Your task to perform on an android device: Open the calendar app, open the side menu, and click the "Day" option Image 0: 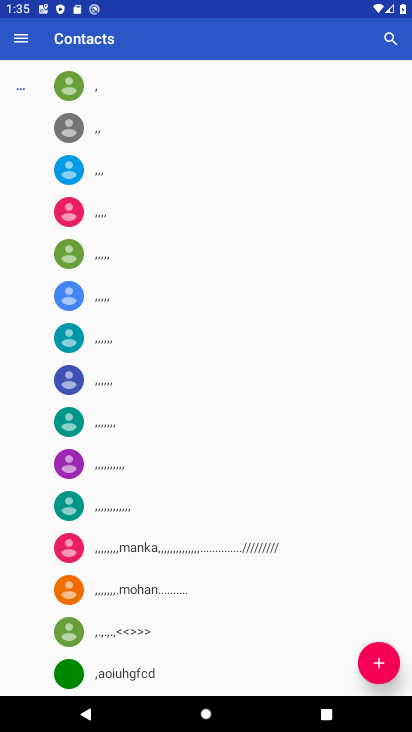
Step 0: press home button
Your task to perform on an android device: Open the calendar app, open the side menu, and click the "Day" option Image 1: 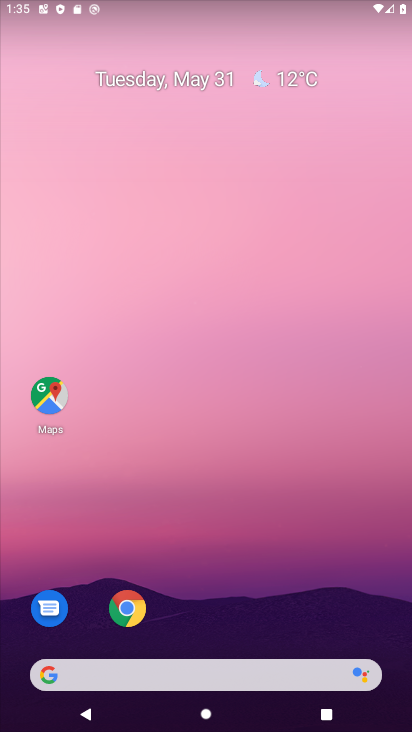
Step 1: drag from (374, 597) to (368, 89)
Your task to perform on an android device: Open the calendar app, open the side menu, and click the "Day" option Image 2: 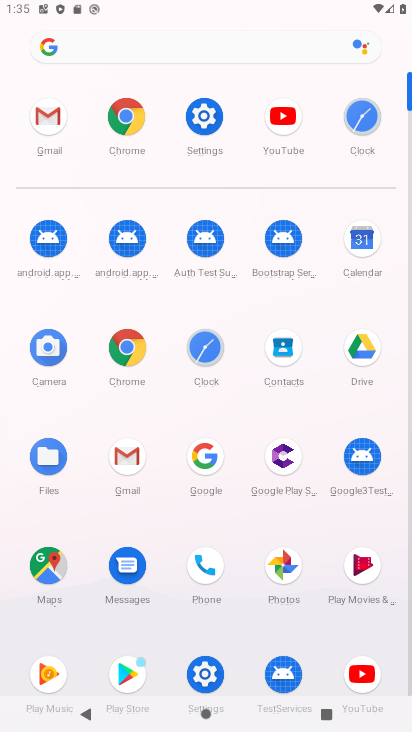
Step 2: click (372, 250)
Your task to perform on an android device: Open the calendar app, open the side menu, and click the "Day" option Image 3: 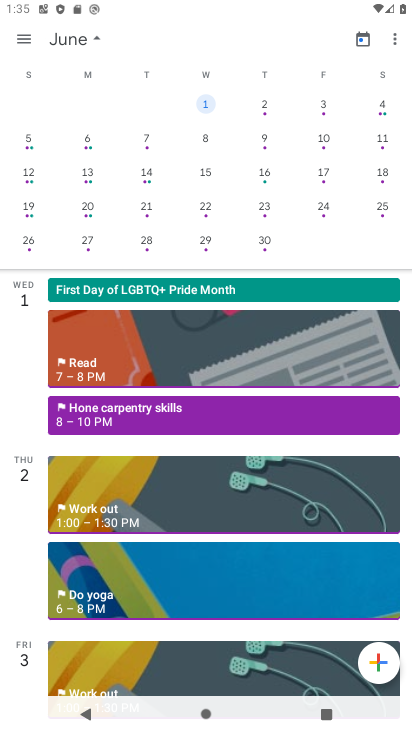
Step 3: click (33, 35)
Your task to perform on an android device: Open the calendar app, open the side menu, and click the "Day" option Image 4: 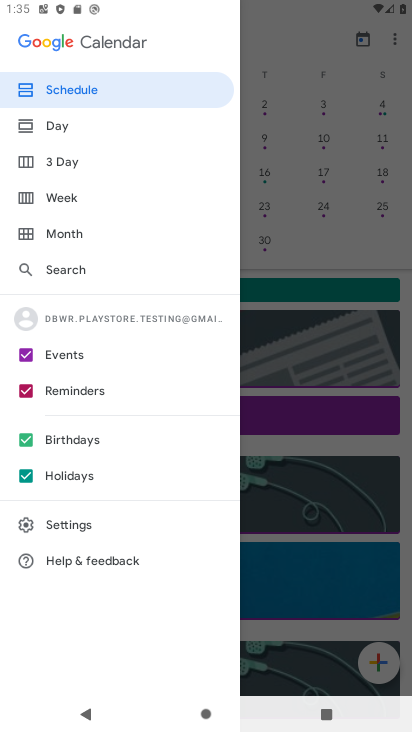
Step 4: click (87, 129)
Your task to perform on an android device: Open the calendar app, open the side menu, and click the "Day" option Image 5: 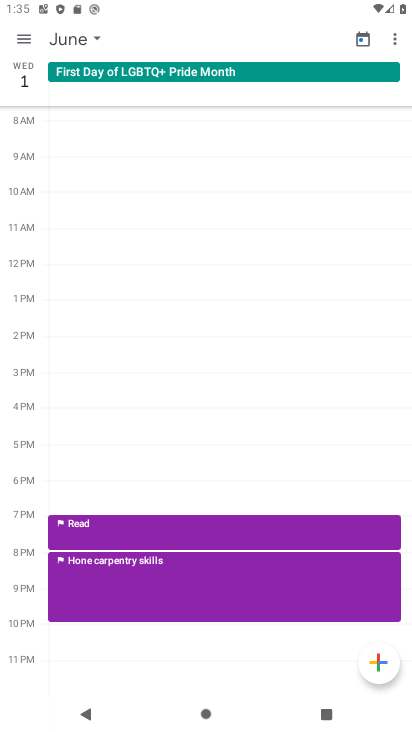
Step 5: task complete